Your task to perform on an android device: Go to Yahoo.com Image 0: 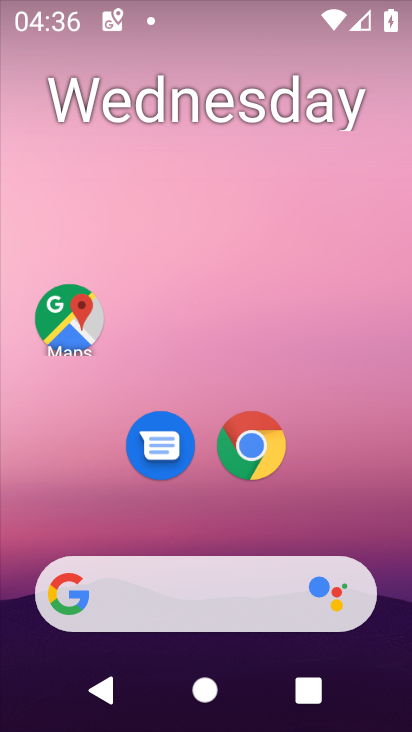
Step 0: click (366, 188)
Your task to perform on an android device: Go to Yahoo.com Image 1: 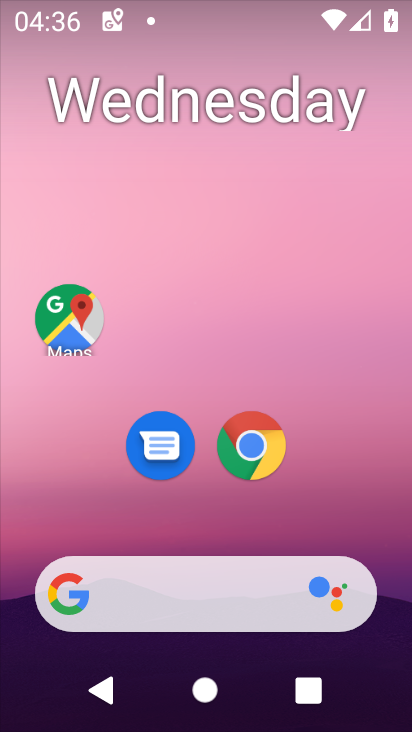
Step 1: click (253, 438)
Your task to perform on an android device: Go to Yahoo.com Image 2: 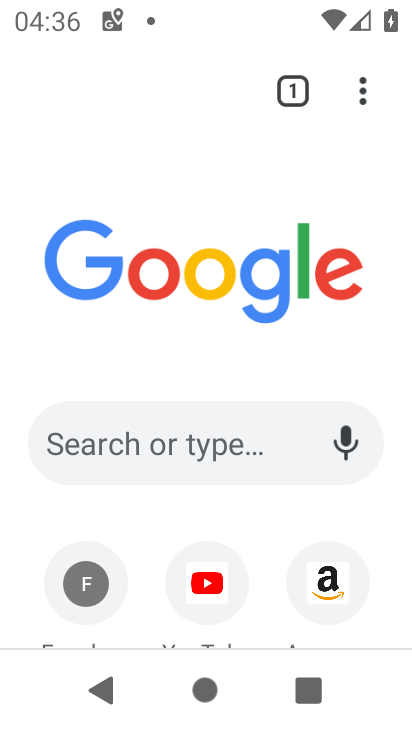
Step 2: drag from (136, 563) to (221, 126)
Your task to perform on an android device: Go to Yahoo.com Image 3: 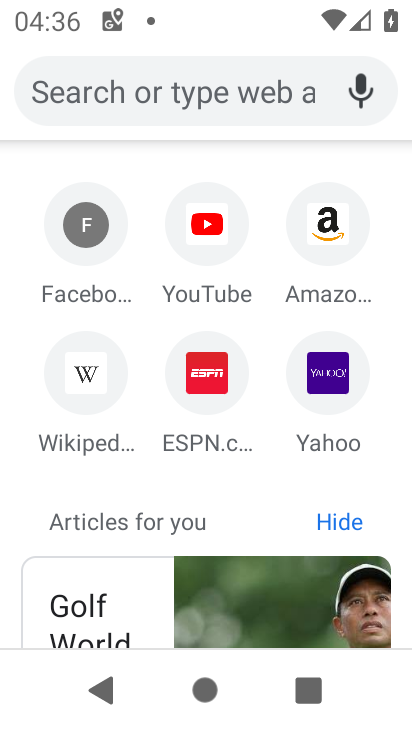
Step 3: click (336, 381)
Your task to perform on an android device: Go to Yahoo.com Image 4: 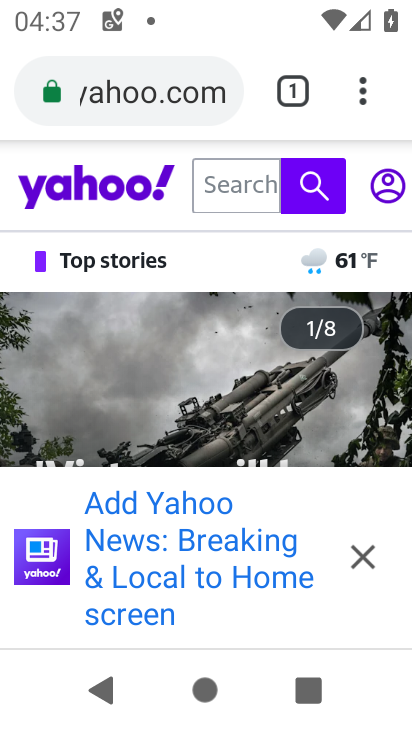
Step 4: task complete